Your task to perform on an android device: uninstall "Booking.com: Hotels and more" Image 0: 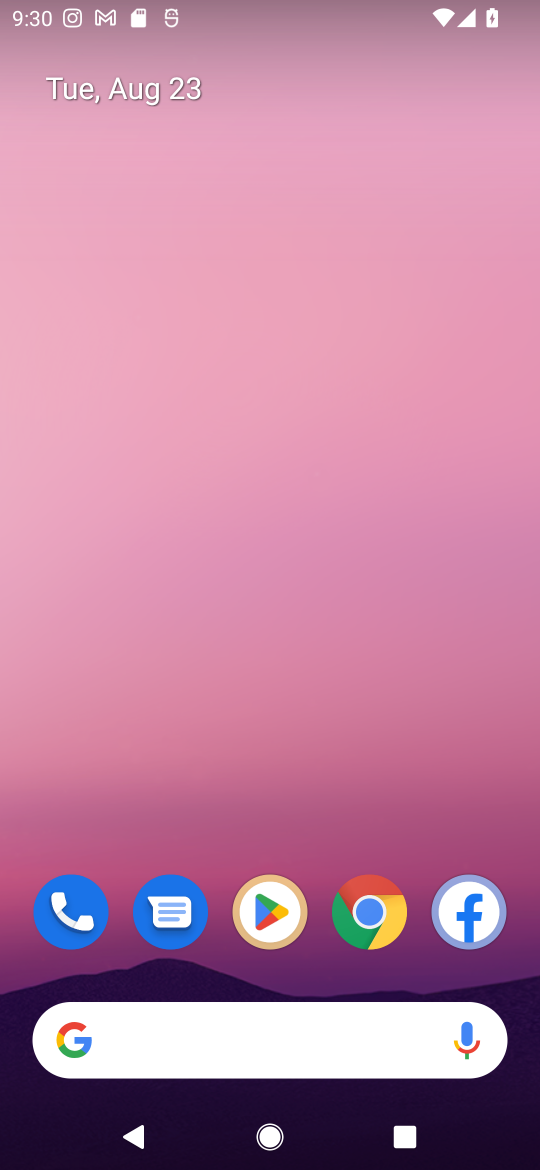
Step 0: click (272, 917)
Your task to perform on an android device: uninstall "Booking.com: Hotels and more" Image 1: 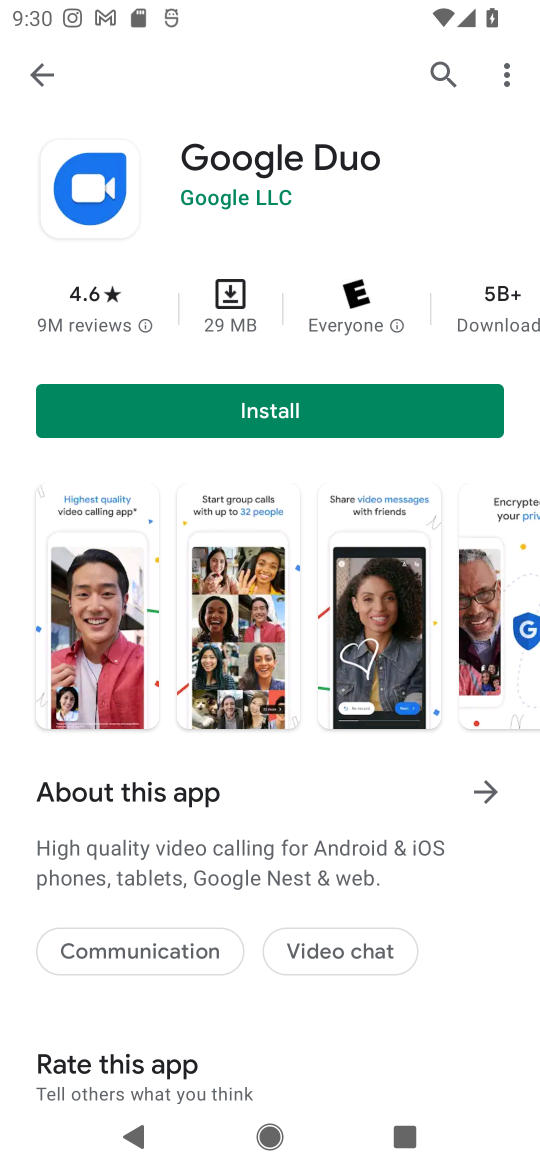
Step 1: click (434, 60)
Your task to perform on an android device: uninstall "Booking.com: Hotels and more" Image 2: 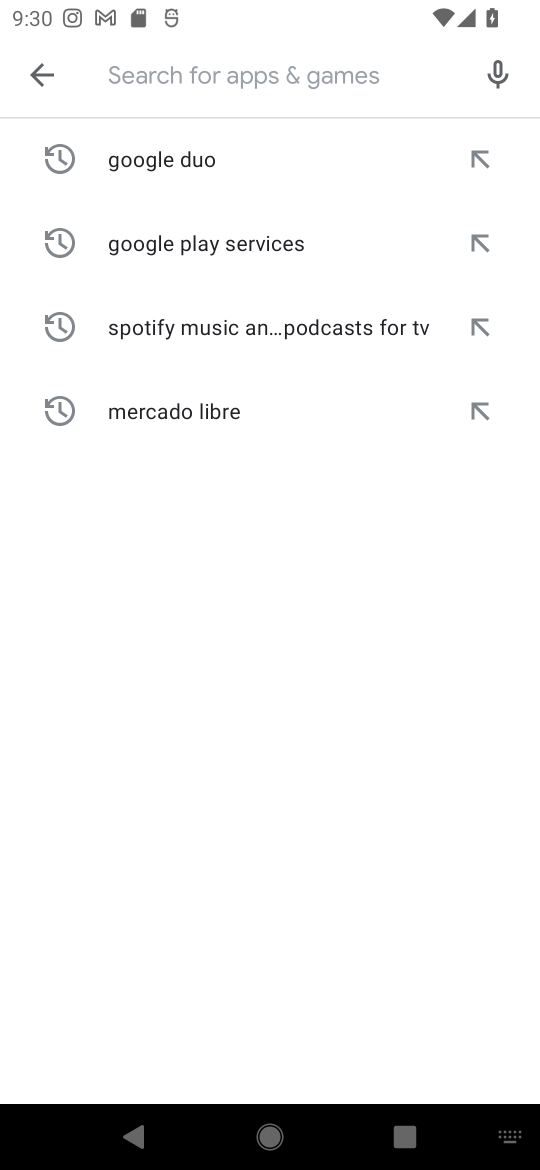
Step 2: type "Booking.com: Hotels and more"
Your task to perform on an android device: uninstall "Booking.com: Hotels and more" Image 3: 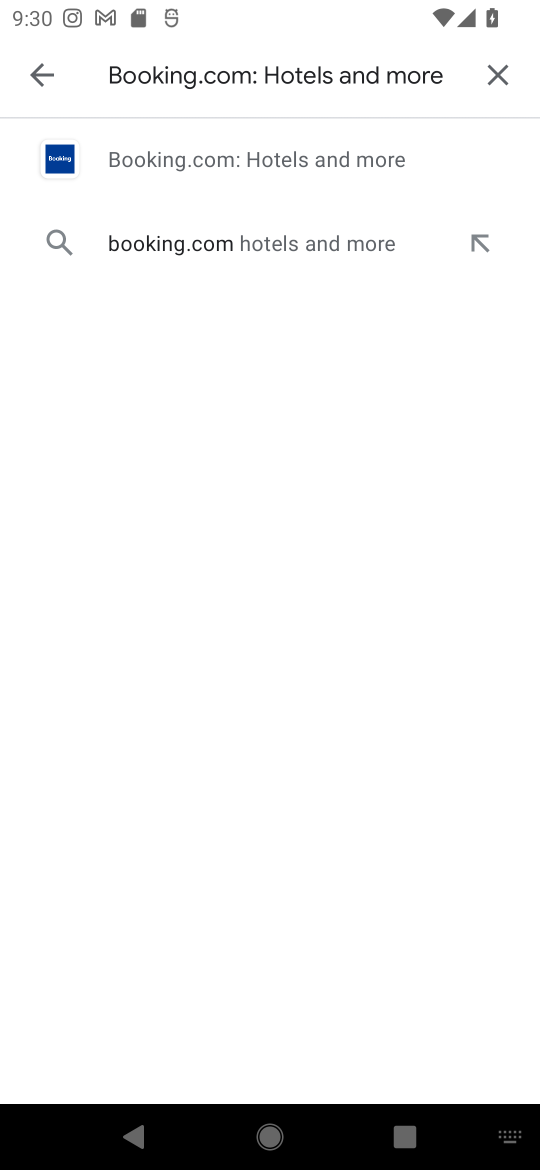
Step 3: click (168, 159)
Your task to perform on an android device: uninstall "Booking.com: Hotels and more" Image 4: 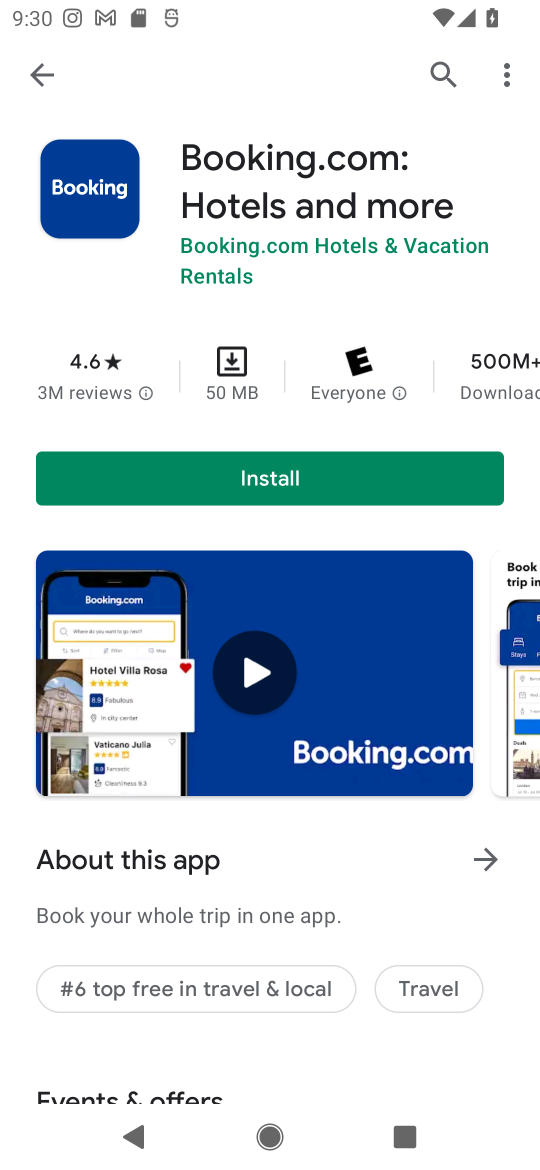
Step 4: task complete